Your task to perform on an android device: Open Yahoo.com Image 0: 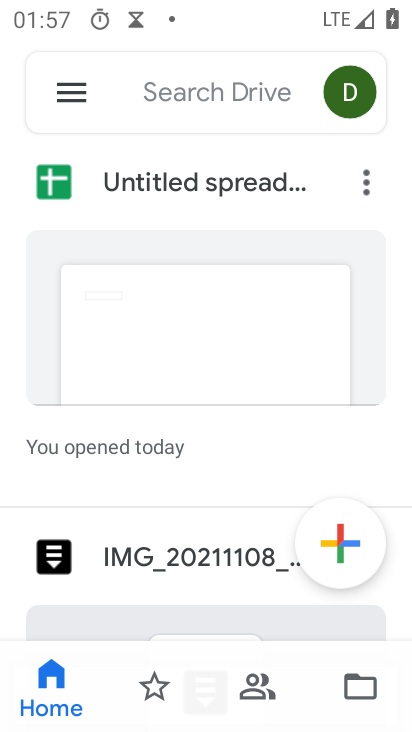
Step 0: press home button
Your task to perform on an android device: Open Yahoo.com Image 1: 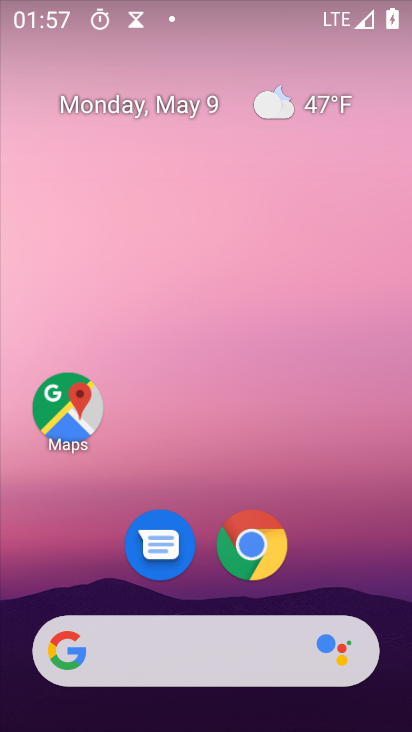
Step 1: drag from (327, 608) to (291, 39)
Your task to perform on an android device: Open Yahoo.com Image 2: 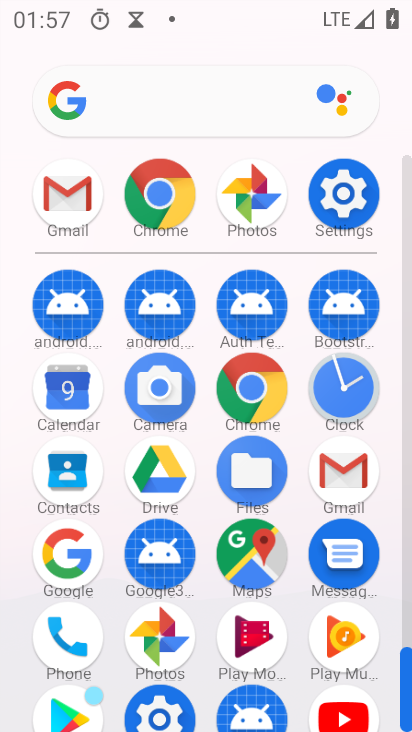
Step 2: click (269, 394)
Your task to perform on an android device: Open Yahoo.com Image 3: 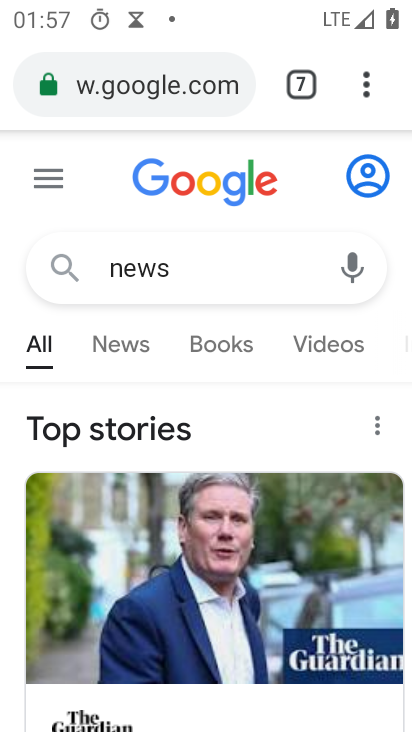
Step 3: drag from (361, 93) to (409, 441)
Your task to perform on an android device: Open Yahoo.com Image 4: 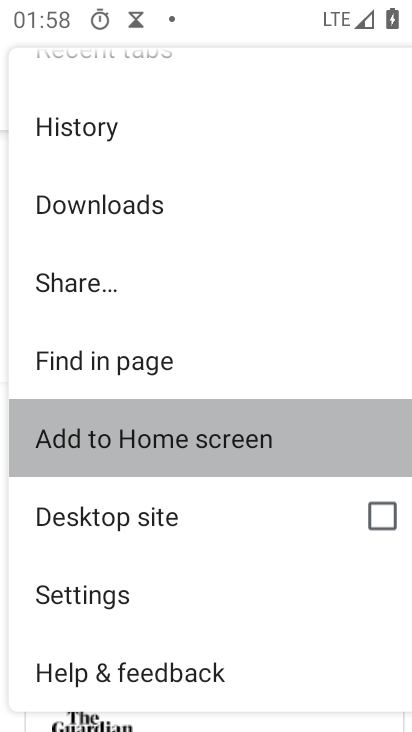
Step 4: press back button
Your task to perform on an android device: Open Yahoo.com Image 5: 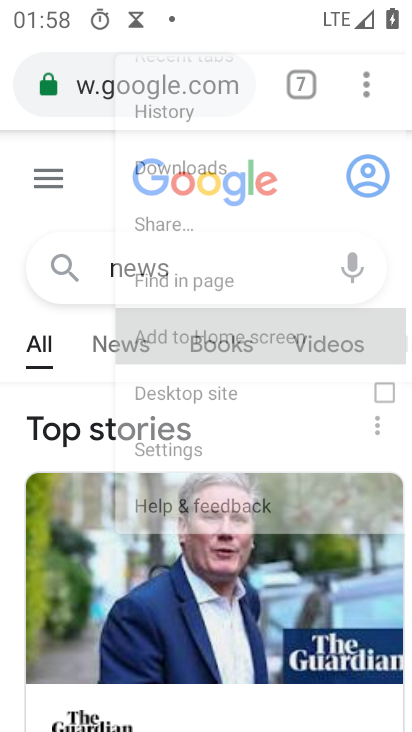
Step 5: click (409, 441)
Your task to perform on an android device: Open Yahoo.com Image 6: 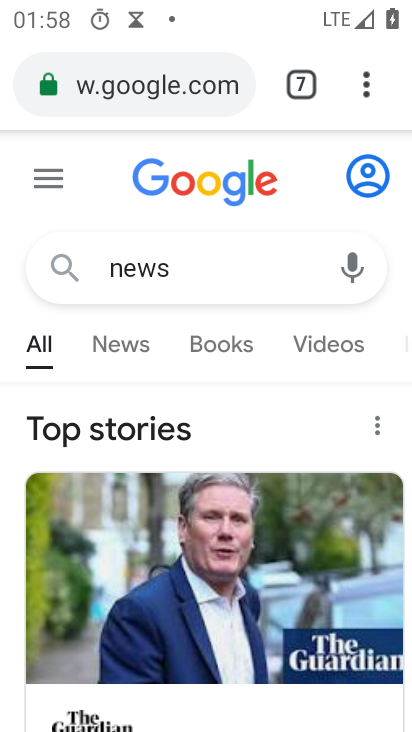
Step 6: click (356, 84)
Your task to perform on an android device: Open Yahoo.com Image 7: 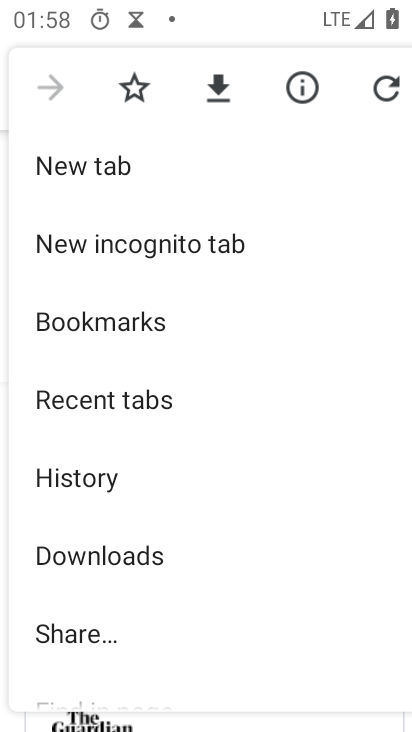
Step 7: press back button
Your task to perform on an android device: Open Yahoo.com Image 8: 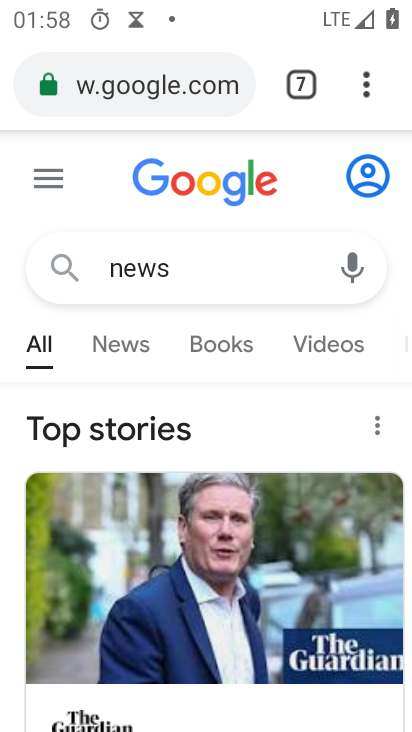
Step 8: drag from (364, 85) to (235, 171)
Your task to perform on an android device: Open Yahoo.com Image 9: 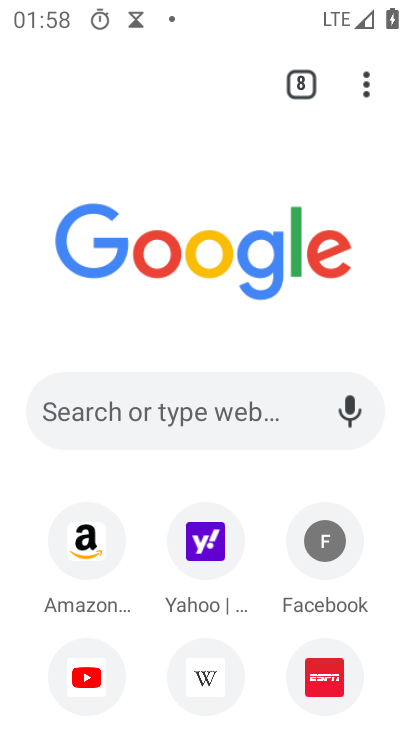
Step 9: click (195, 549)
Your task to perform on an android device: Open Yahoo.com Image 10: 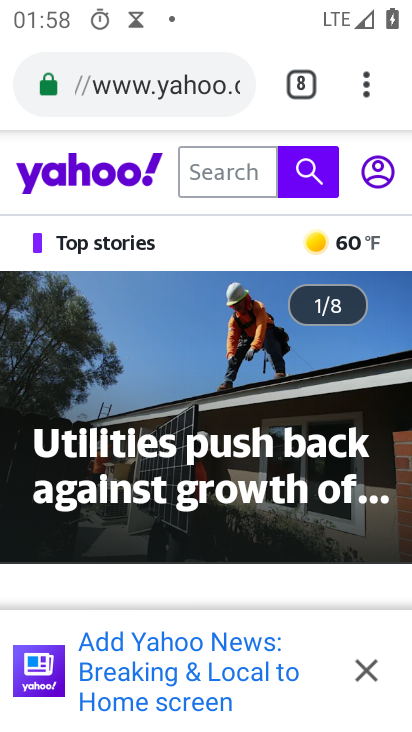
Step 10: task complete